Your task to perform on an android device: turn off location Image 0: 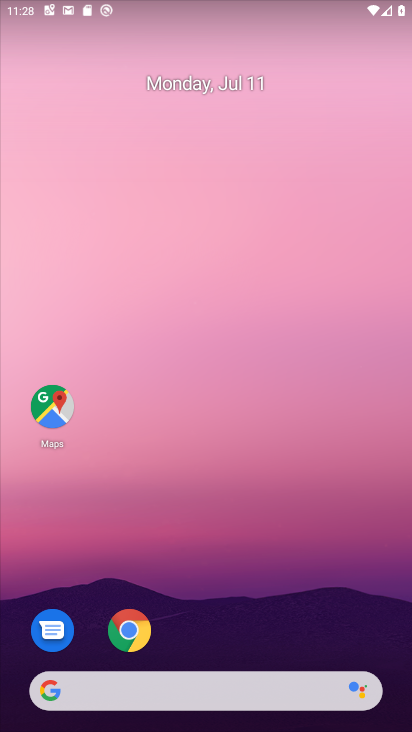
Step 0: drag from (241, 626) to (247, 181)
Your task to perform on an android device: turn off location Image 1: 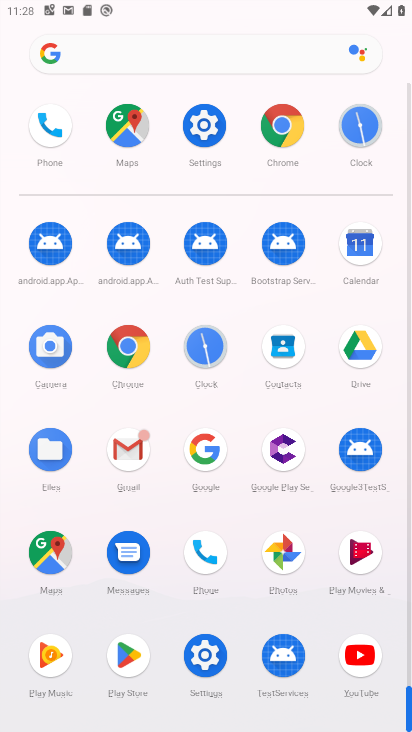
Step 1: click (208, 139)
Your task to perform on an android device: turn off location Image 2: 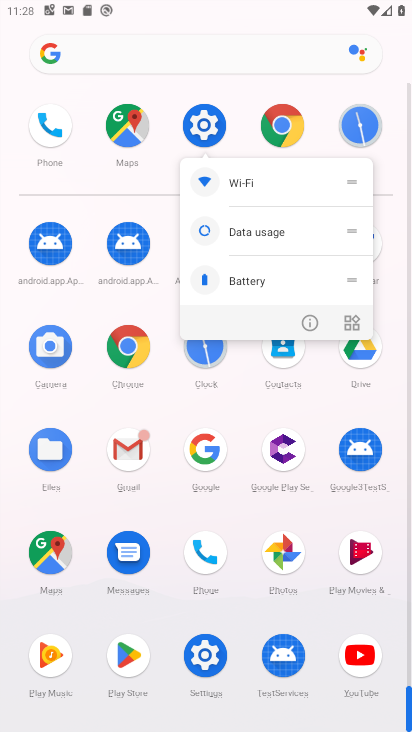
Step 2: click (204, 126)
Your task to perform on an android device: turn off location Image 3: 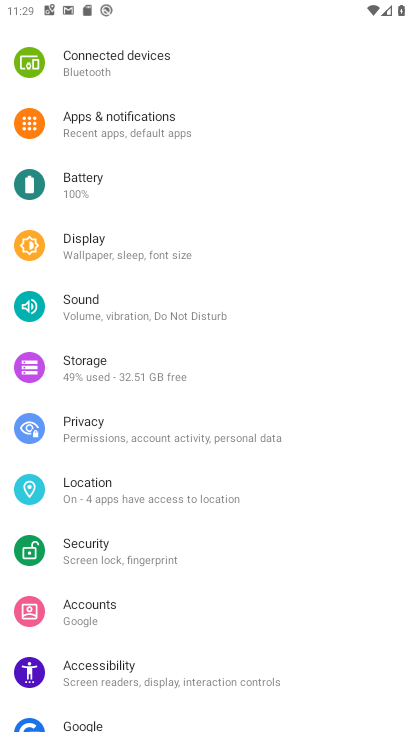
Step 3: click (139, 482)
Your task to perform on an android device: turn off location Image 4: 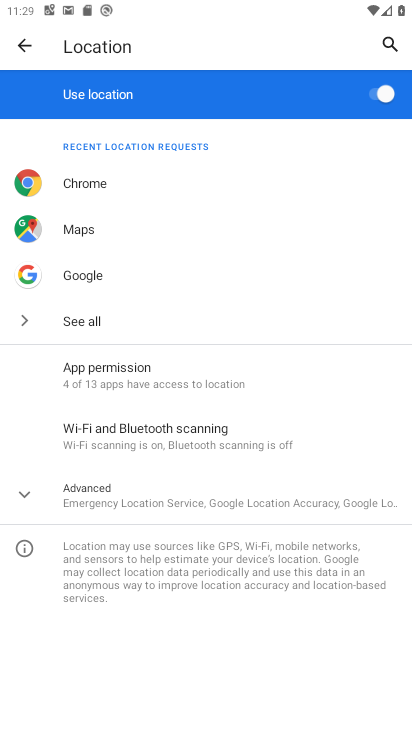
Step 4: click (309, 90)
Your task to perform on an android device: turn off location Image 5: 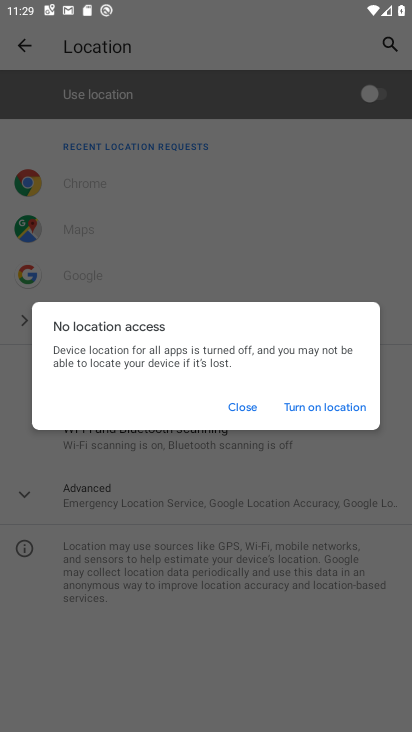
Step 5: click (249, 411)
Your task to perform on an android device: turn off location Image 6: 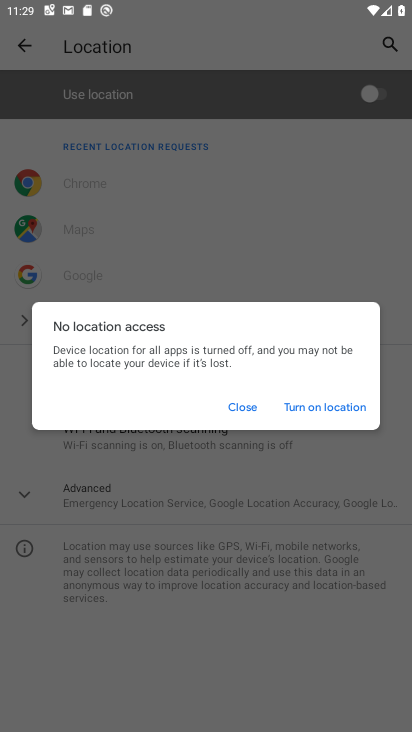
Step 6: task complete